Your task to perform on an android device: Open Youtube and go to the subscriptions tab Image 0: 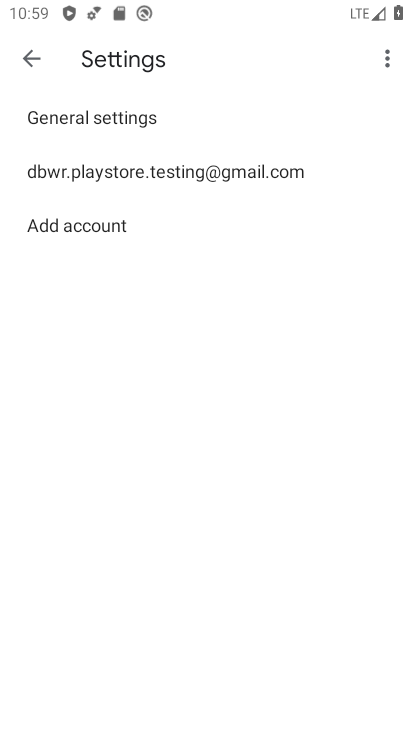
Step 0: press home button
Your task to perform on an android device: Open Youtube and go to the subscriptions tab Image 1: 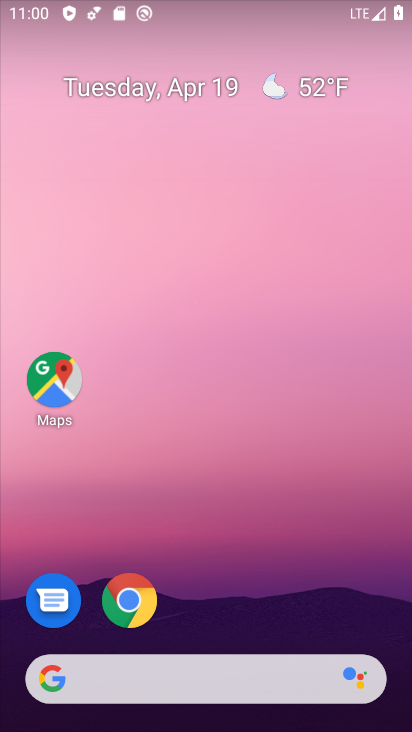
Step 1: drag from (227, 651) to (239, 71)
Your task to perform on an android device: Open Youtube and go to the subscriptions tab Image 2: 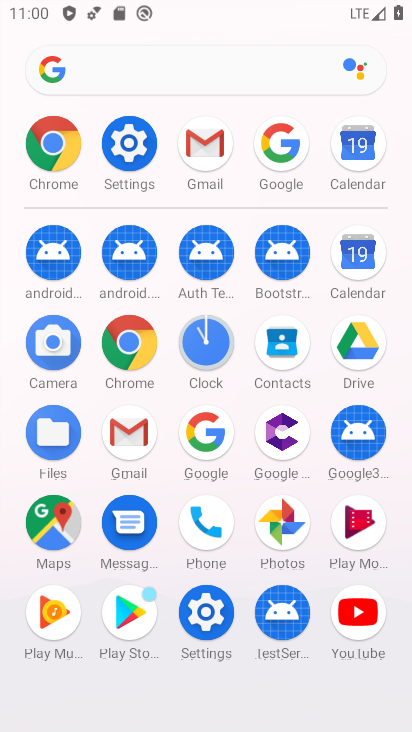
Step 2: click (349, 614)
Your task to perform on an android device: Open Youtube and go to the subscriptions tab Image 3: 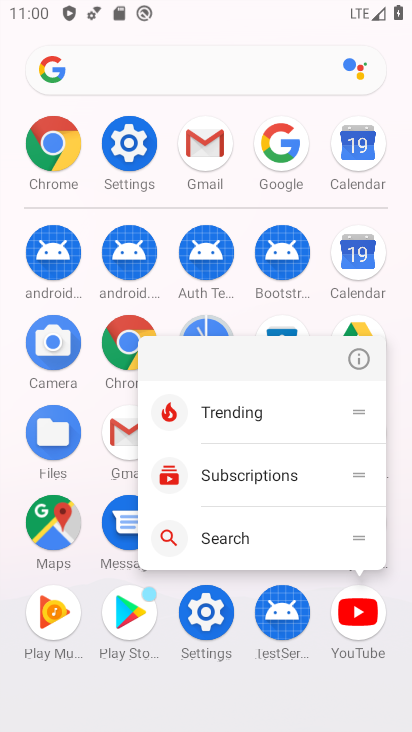
Step 3: click (353, 624)
Your task to perform on an android device: Open Youtube and go to the subscriptions tab Image 4: 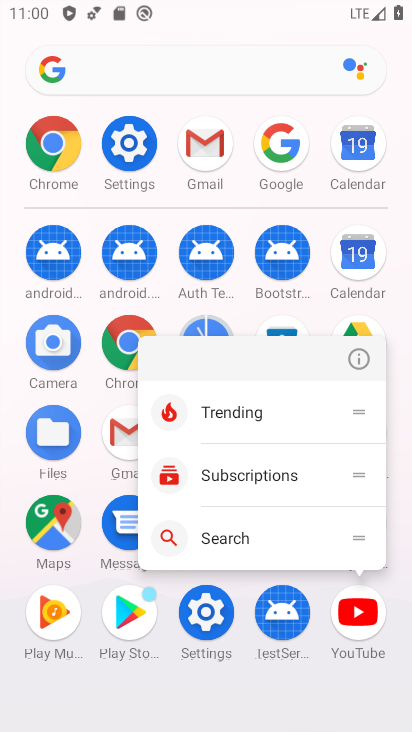
Step 4: click (353, 624)
Your task to perform on an android device: Open Youtube and go to the subscriptions tab Image 5: 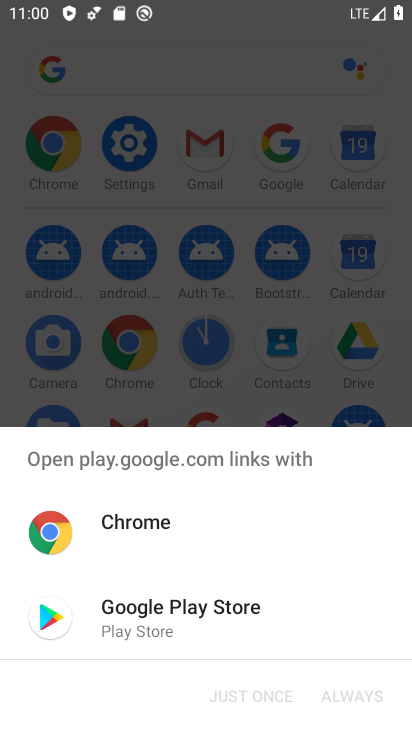
Step 5: click (202, 546)
Your task to perform on an android device: Open Youtube and go to the subscriptions tab Image 6: 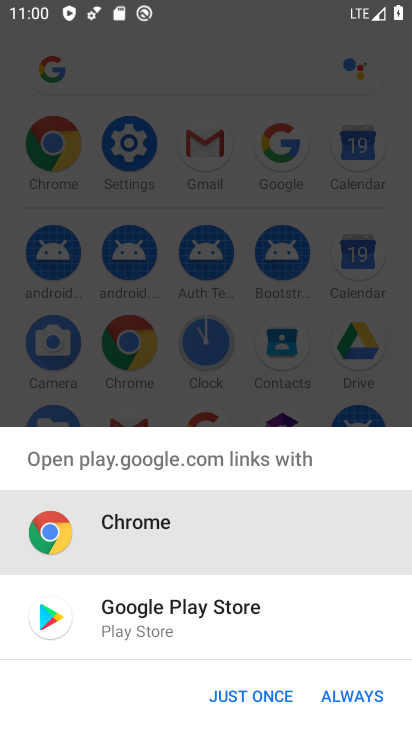
Step 6: click (181, 589)
Your task to perform on an android device: Open Youtube and go to the subscriptions tab Image 7: 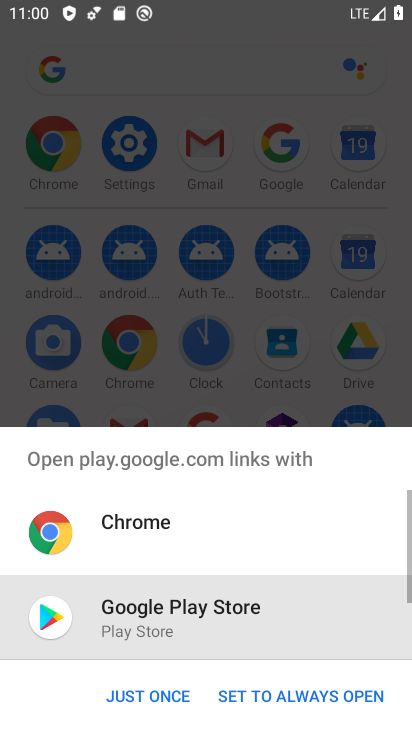
Step 7: click (246, 705)
Your task to perform on an android device: Open Youtube and go to the subscriptions tab Image 8: 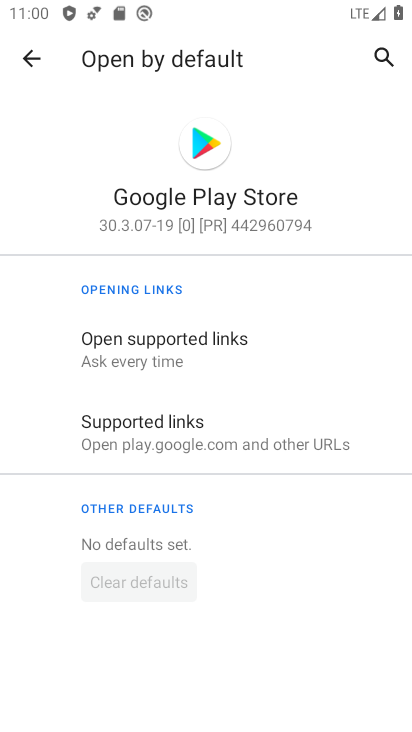
Step 8: click (30, 67)
Your task to perform on an android device: Open Youtube and go to the subscriptions tab Image 9: 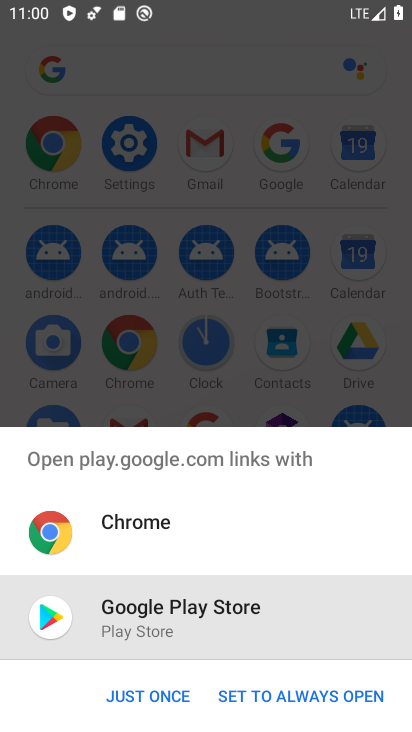
Step 9: click (147, 700)
Your task to perform on an android device: Open Youtube and go to the subscriptions tab Image 10: 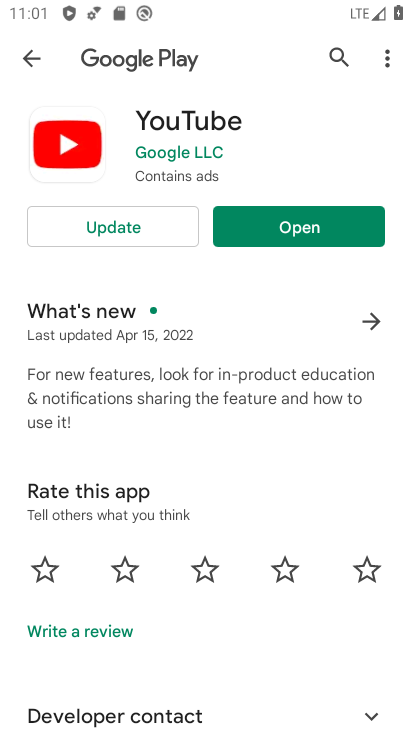
Step 10: click (173, 236)
Your task to perform on an android device: Open Youtube and go to the subscriptions tab Image 11: 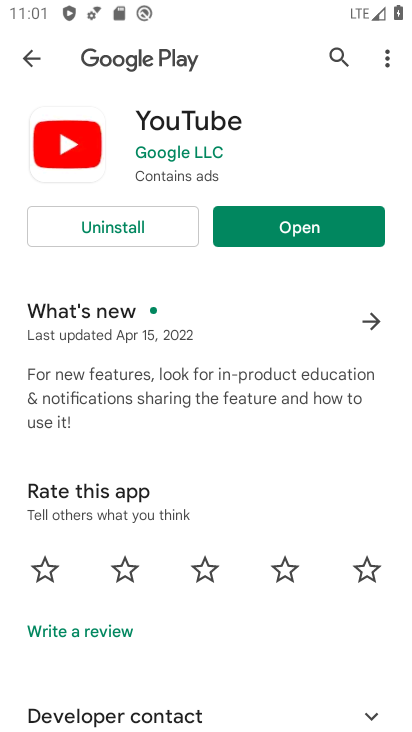
Step 11: click (307, 224)
Your task to perform on an android device: Open Youtube and go to the subscriptions tab Image 12: 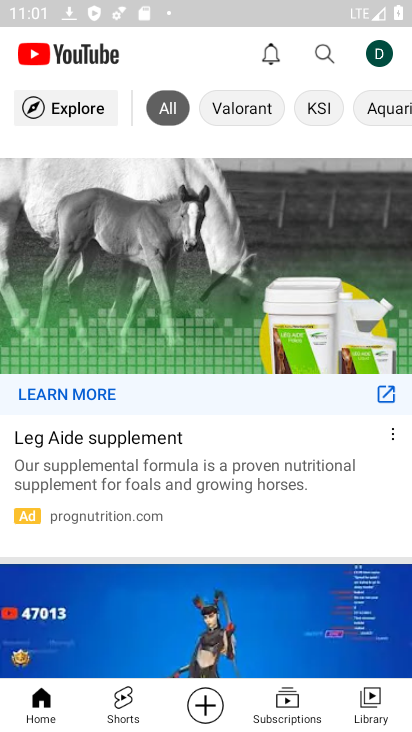
Step 12: click (273, 709)
Your task to perform on an android device: Open Youtube and go to the subscriptions tab Image 13: 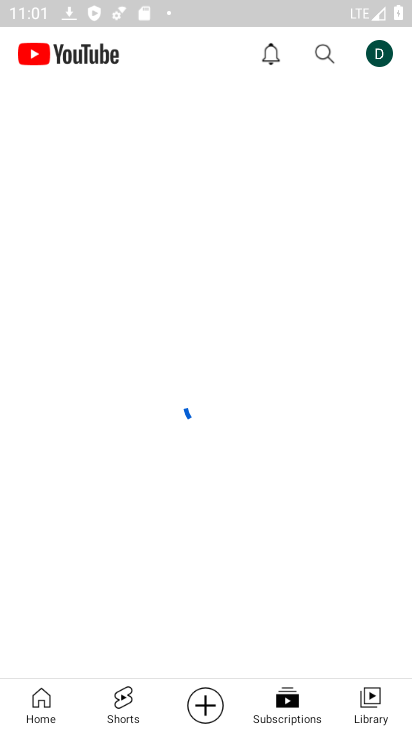
Step 13: task complete